Your task to perform on an android device: see sites visited before in the chrome app Image 0: 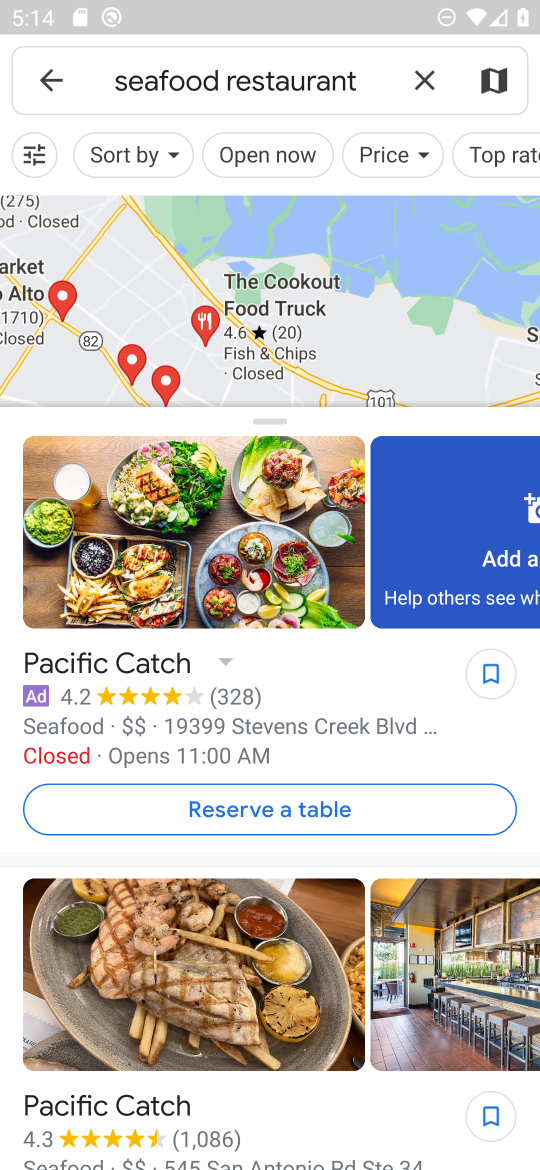
Step 0: press home button
Your task to perform on an android device: see sites visited before in the chrome app Image 1: 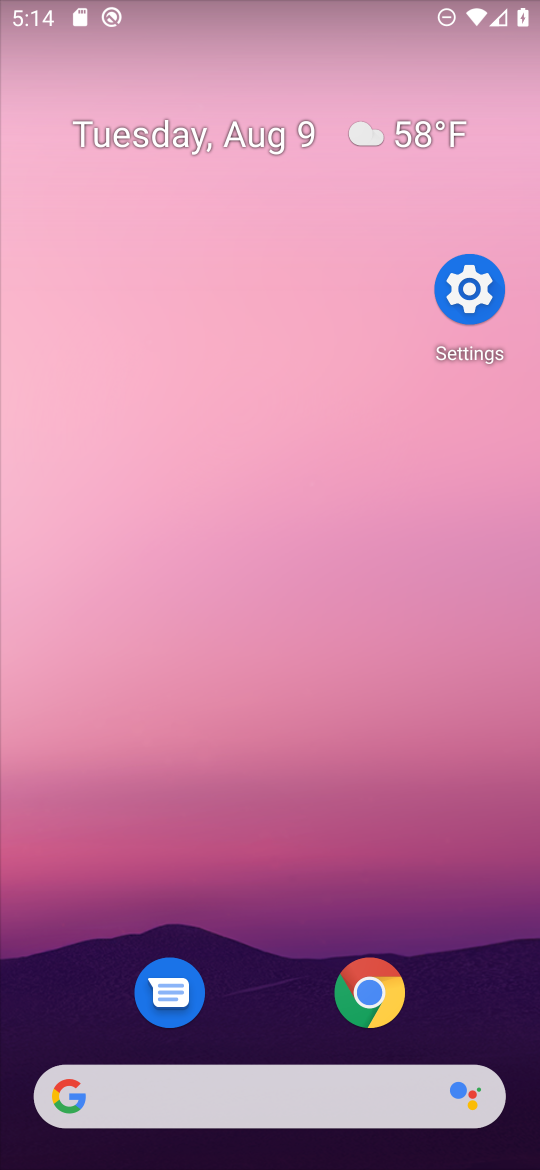
Step 1: drag from (348, 1082) to (222, 16)
Your task to perform on an android device: see sites visited before in the chrome app Image 2: 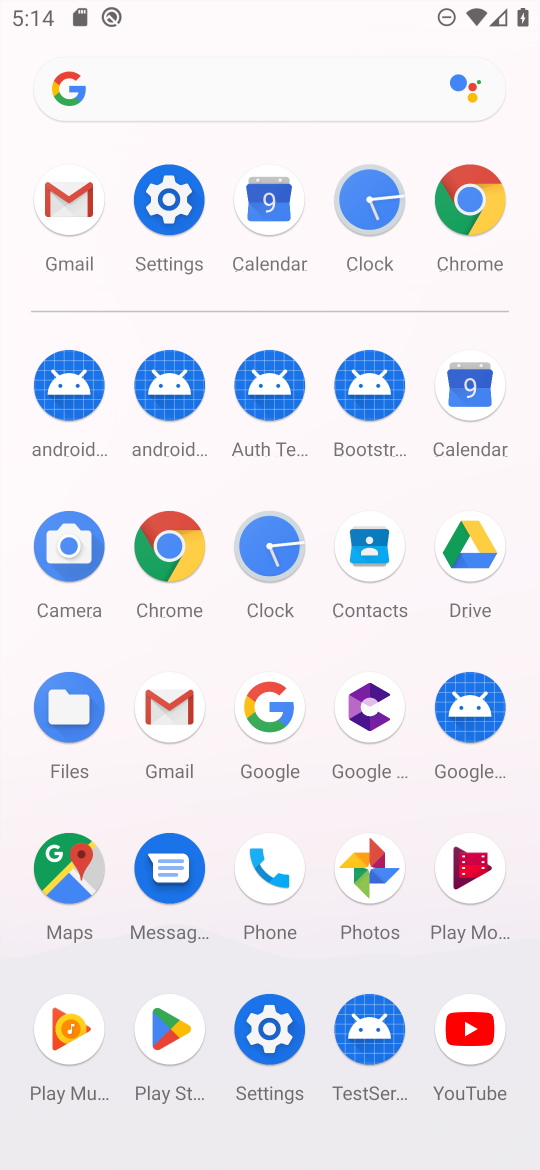
Step 2: click (172, 526)
Your task to perform on an android device: see sites visited before in the chrome app Image 3: 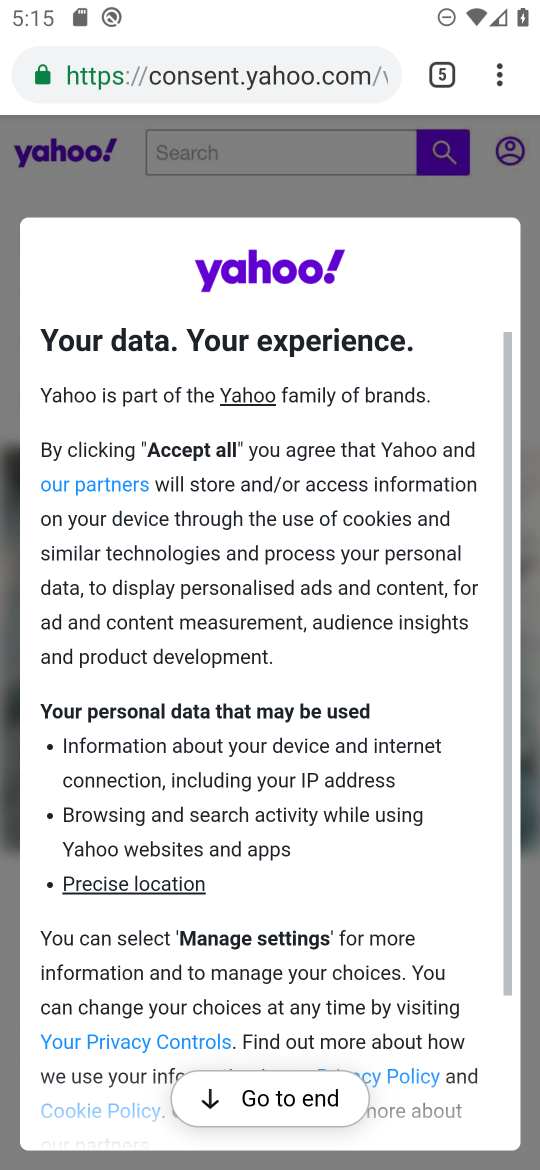
Step 3: click (503, 94)
Your task to perform on an android device: see sites visited before in the chrome app Image 4: 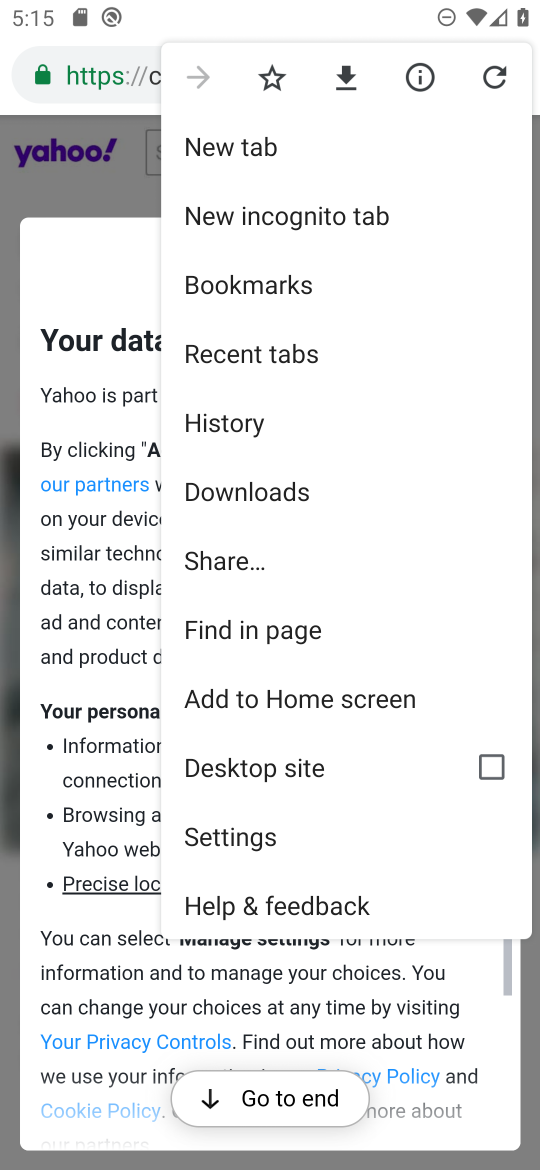
Step 4: click (220, 353)
Your task to perform on an android device: see sites visited before in the chrome app Image 5: 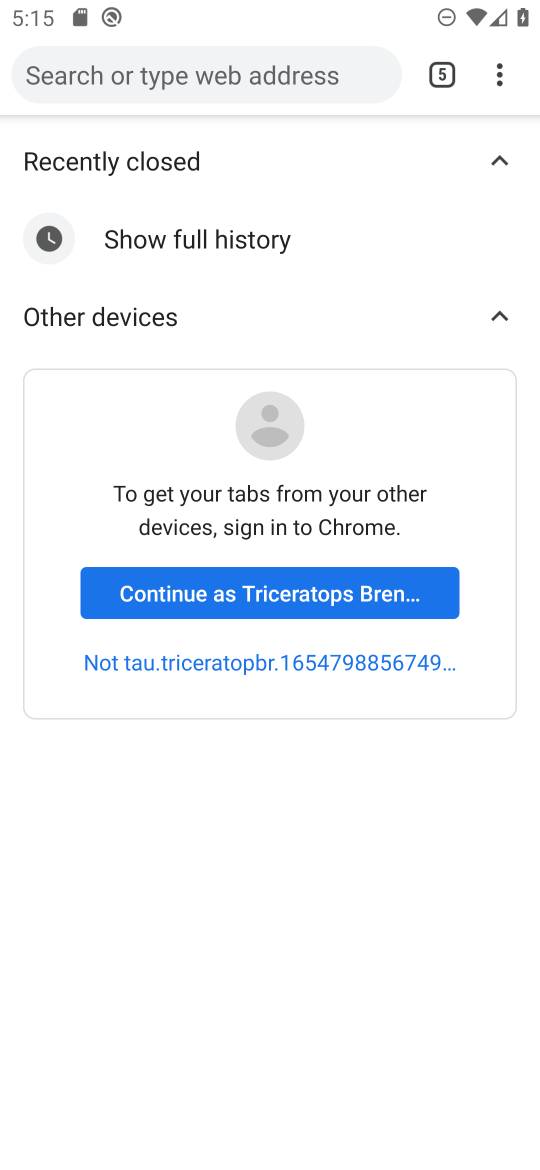
Step 5: click (500, 64)
Your task to perform on an android device: see sites visited before in the chrome app Image 6: 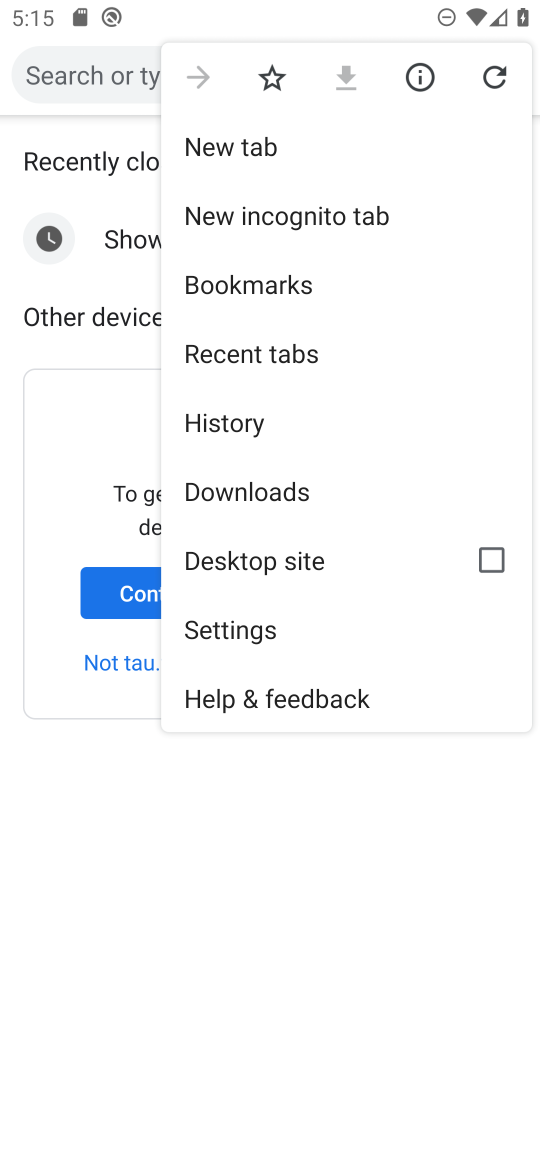
Step 6: click (279, 345)
Your task to perform on an android device: see sites visited before in the chrome app Image 7: 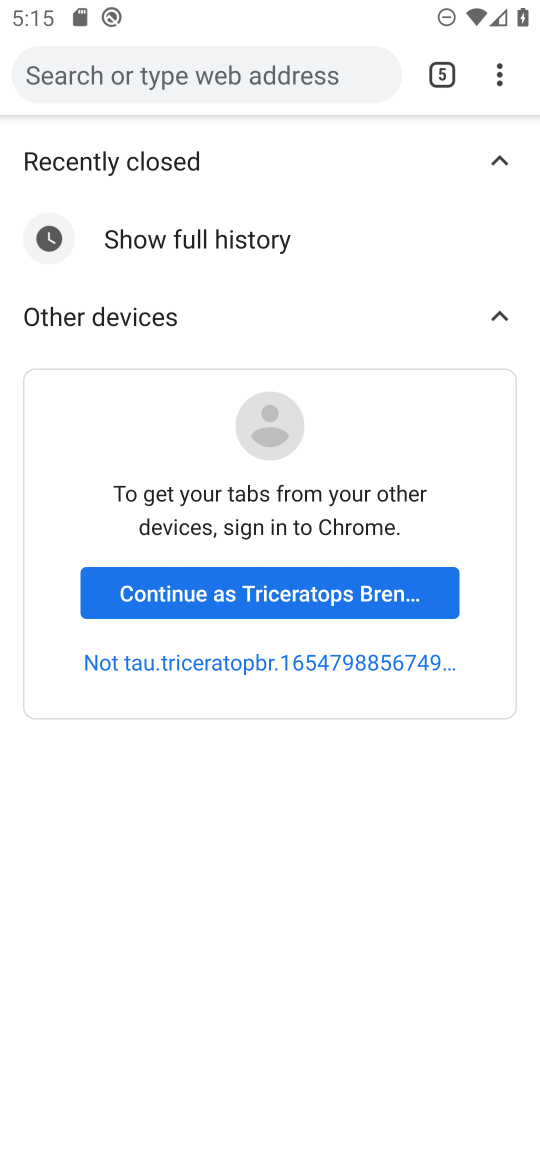
Step 7: task complete